Your task to perform on an android device: Show me popular videos on Youtube Image 0: 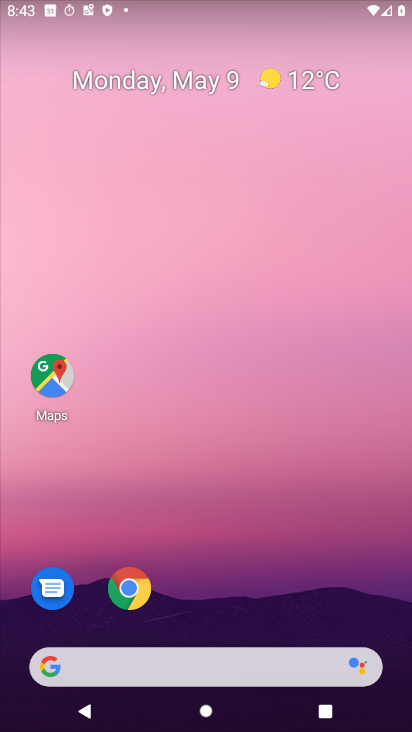
Step 0: drag from (183, 667) to (337, 6)
Your task to perform on an android device: Show me popular videos on Youtube Image 1: 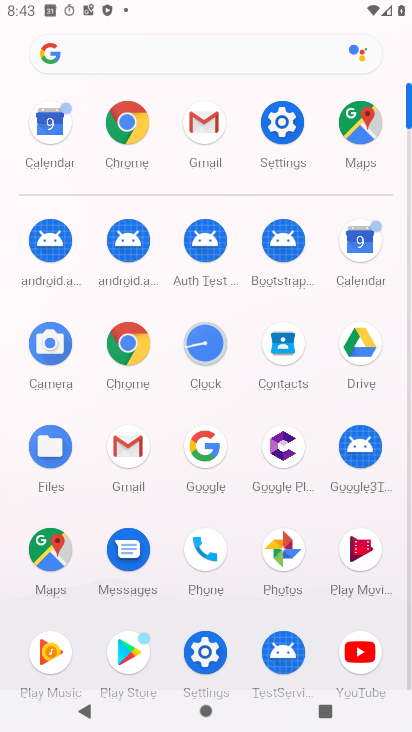
Step 1: click (357, 657)
Your task to perform on an android device: Show me popular videos on Youtube Image 2: 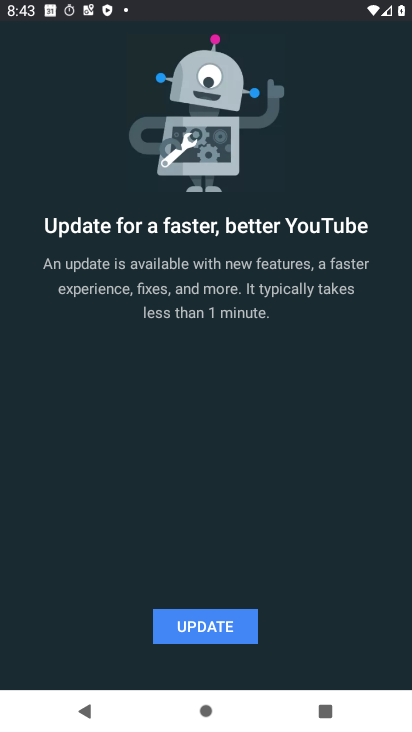
Step 2: click (217, 637)
Your task to perform on an android device: Show me popular videos on Youtube Image 3: 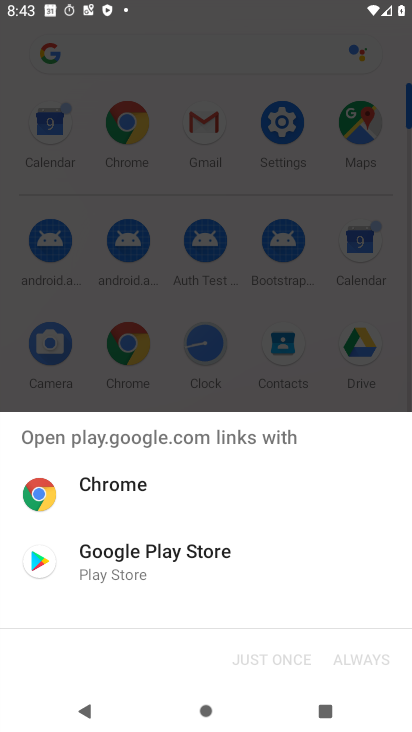
Step 3: click (148, 558)
Your task to perform on an android device: Show me popular videos on Youtube Image 4: 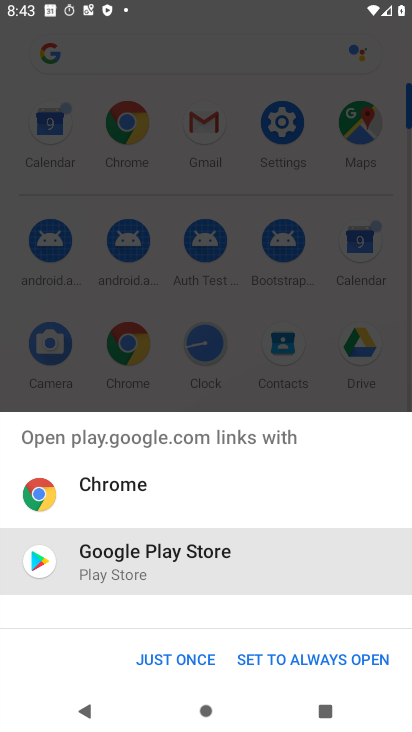
Step 4: click (171, 660)
Your task to perform on an android device: Show me popular videos on Youtube Image 5: 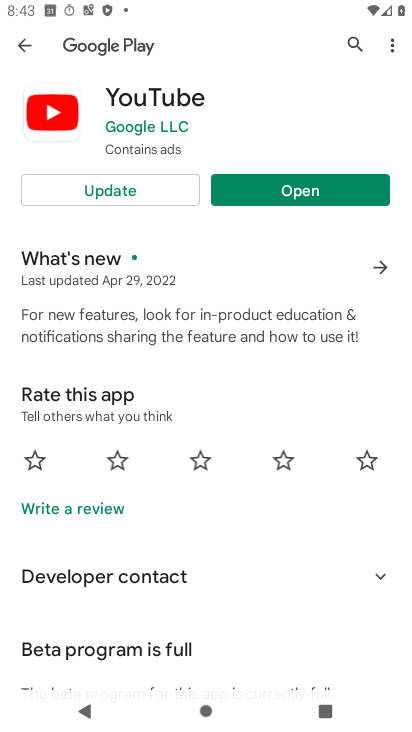
Step 5: click (166, 190)
Your task to perform on an android device: Show me popular videos on Youtube Image 6: 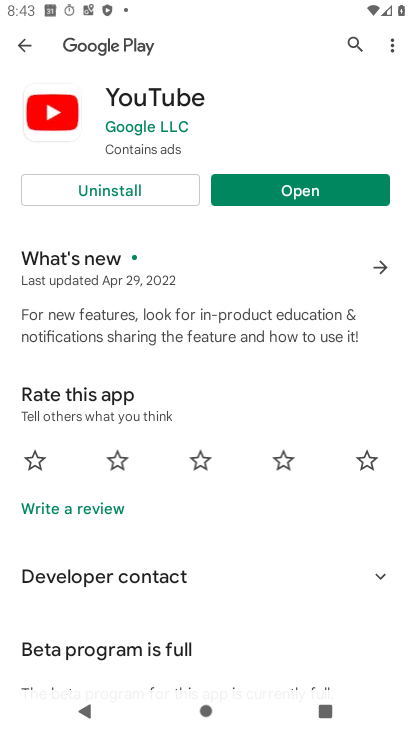
Step 6: click (313, 186)
Your task to perform on an android device: Show me popular videos on Youtube Image 7: 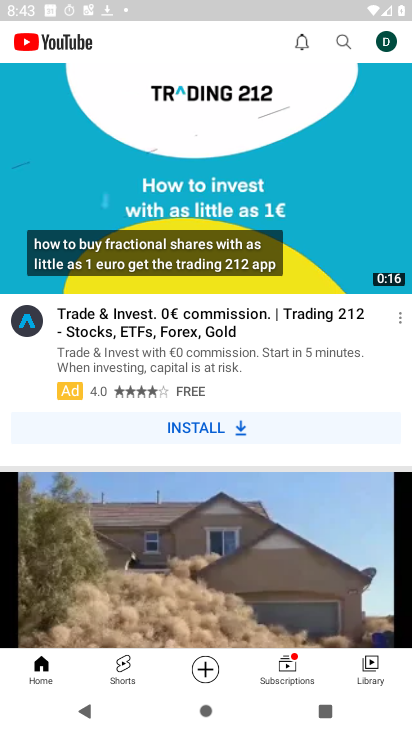
Step 7: task complete